Your task to perform on an android device: open chrome and create a bookmark for the current page Image 0: 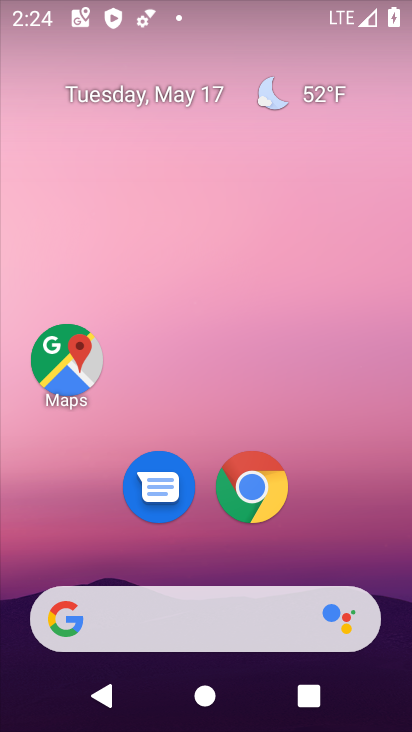
Step 0: click (253, 478)
Your task to perform on an android device: open chrome and create a bookmark for the current page Image 1: 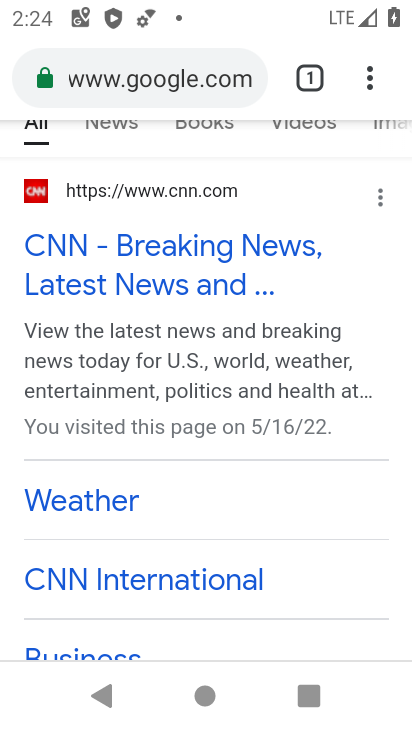
Step 1: click (371, 79)
Your task to perform on an android device: open chrome and create a bookmark for the current page Image 2: 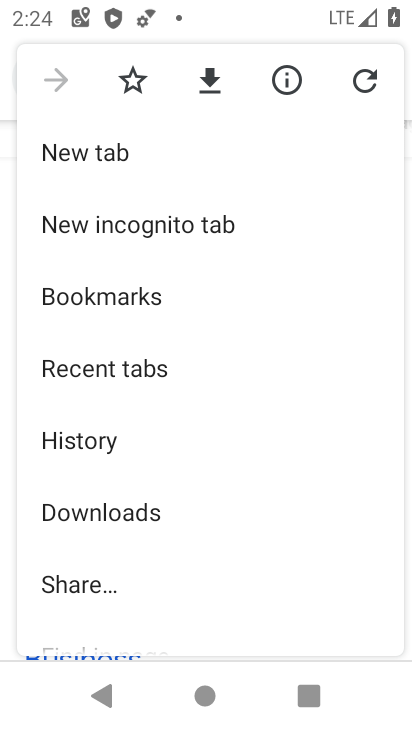
Step 2: click (132, 80)
Your task to perform on an android device: open chrome and create a bookmark for the current page Image 3: 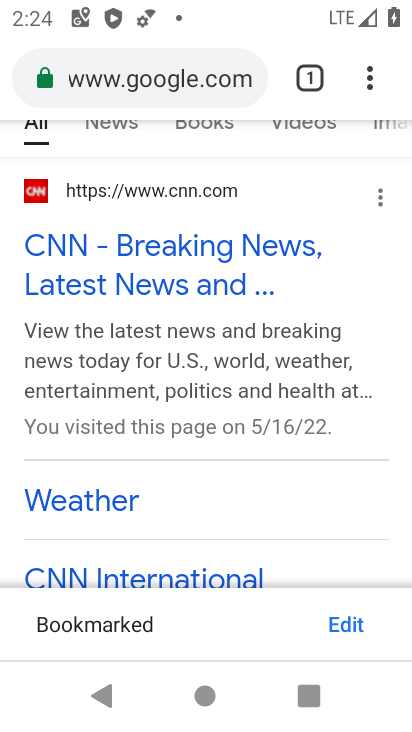
Step 3: task complete